Your task to perform on an android device: Open Chrome and go to the settings page Image 0: 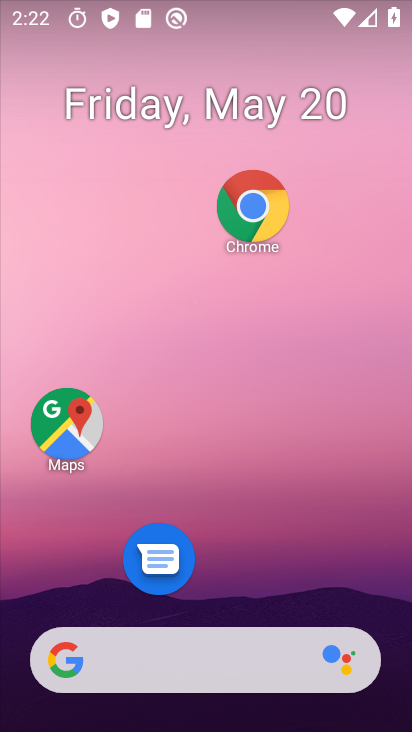
Step 0: drag from (217, 628) to (158, 191)
Your task to perform on an android device: Open Chrome and go to the settings page Image 1: 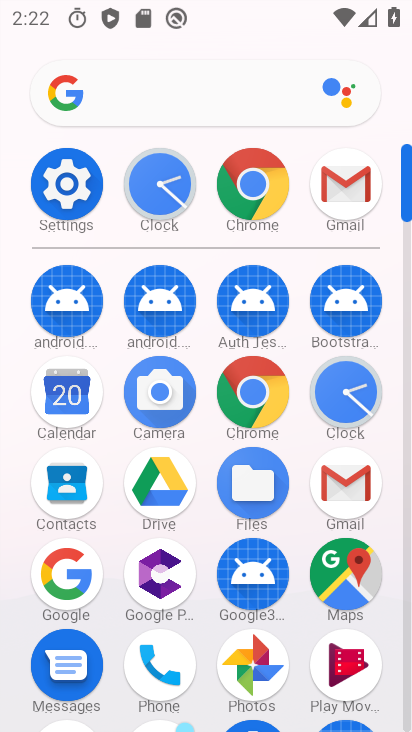
Step 1: click (244, 211)
Your task to perform on an android device: Open Chrome and go to the settings page Image 2: 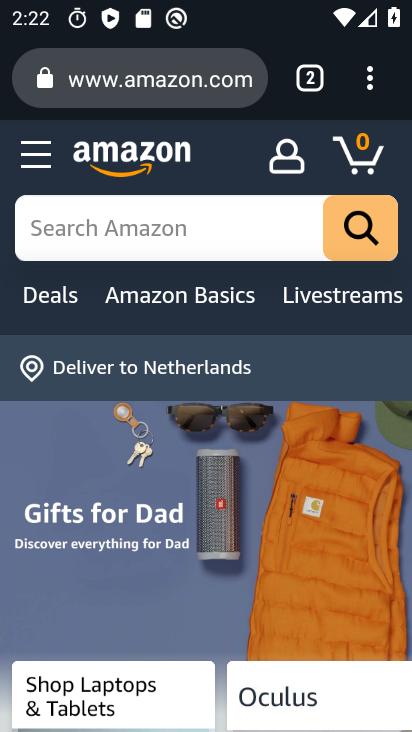
Step 2: task complete